Your task to perform on an android device: turn on priority inbox in the gmail app Image 0: 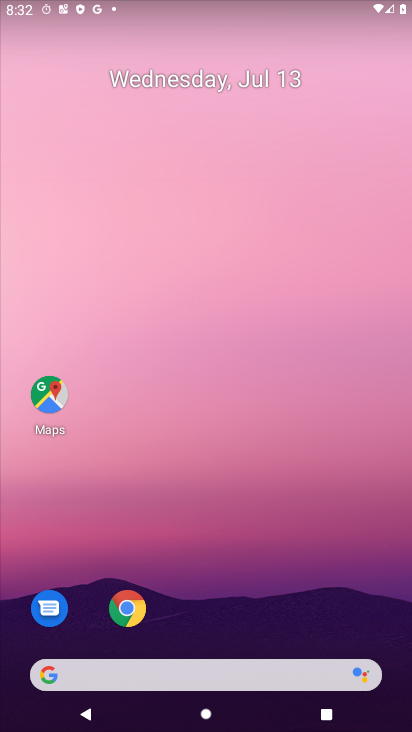
Step 0: drag from (270, 607) to (222, 164)
Your task to perform on an android device: turn on priority inbox in the gmail app Image 1: 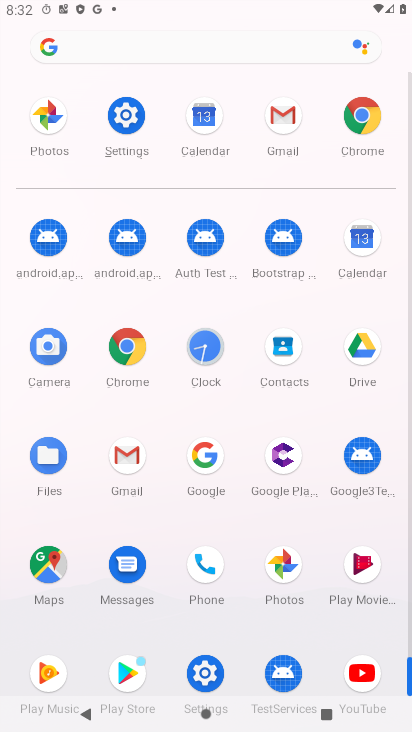
Step 1: click (287, 124)
Your task to perform on an android device: turn on priority inbox in the gmail app Image 2: 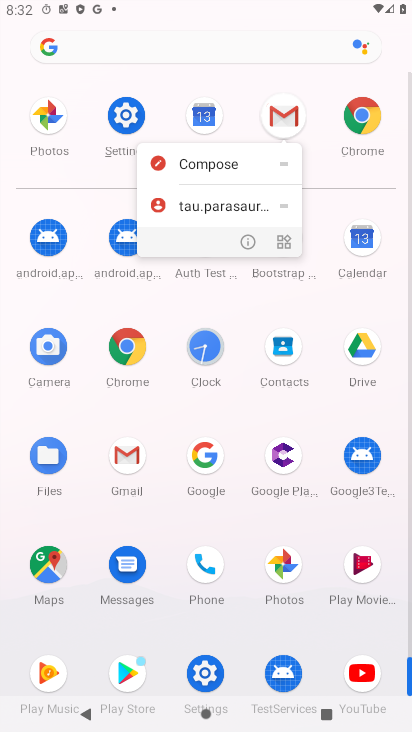
Step 2: click (287, 124)
Your task to perform on an android device: turn on priority inbox in the gmail app Image 3: 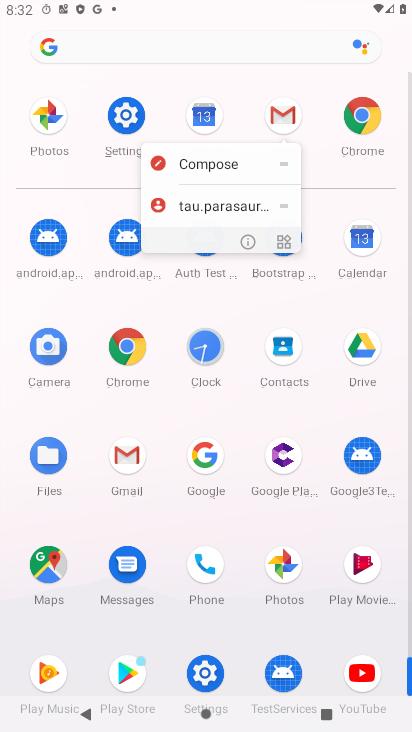
Step 3: click (287, 124)
Your task to perform on an android device: turn on priority inbox in the gmail app Image 4: 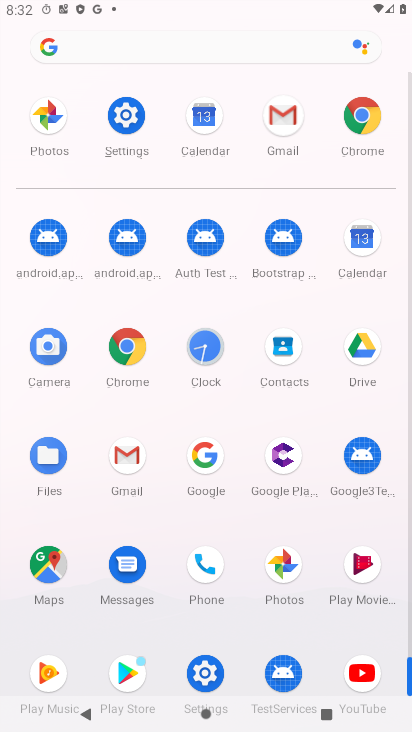
Step 4: click (287, 124)
Your task to perform on an android device: turn on priority inbox in the gmail app Image 5: 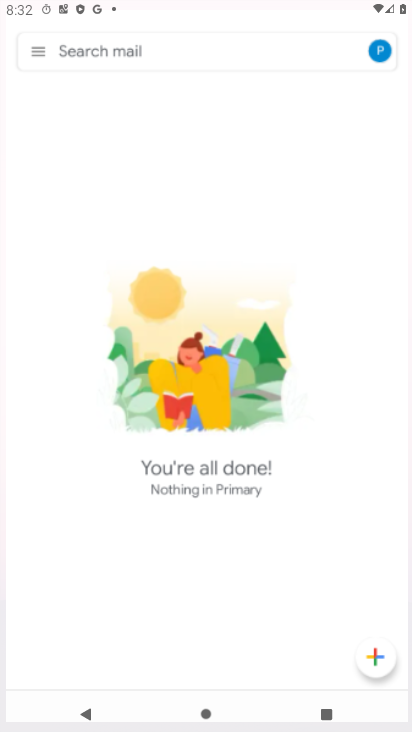
Step 5: click (288, 124)
Your task to perform on an android device: turn on priority inbox in the gmail app Image 6: 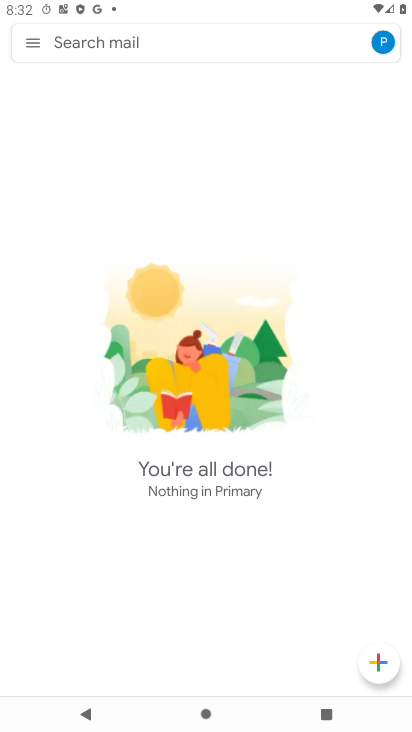
Step 6: click (288, 124)
Your task to perform on an android device: turn on priority inbox in the gmail app Image 7: 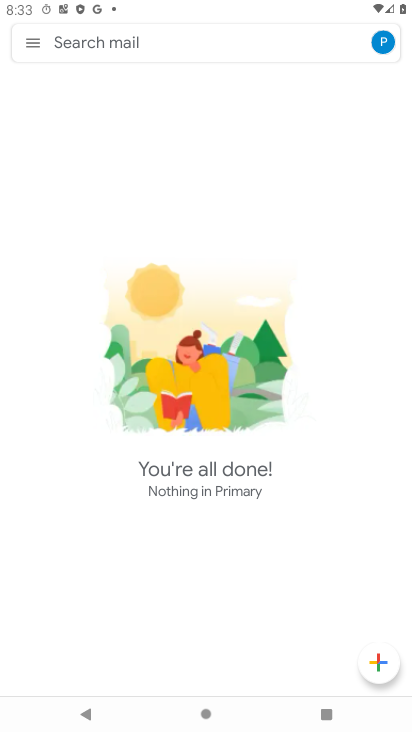
Step 7: click (37, 40)
Your task to perform on an android device: turn on priority inbox in the gmail app Image 8: 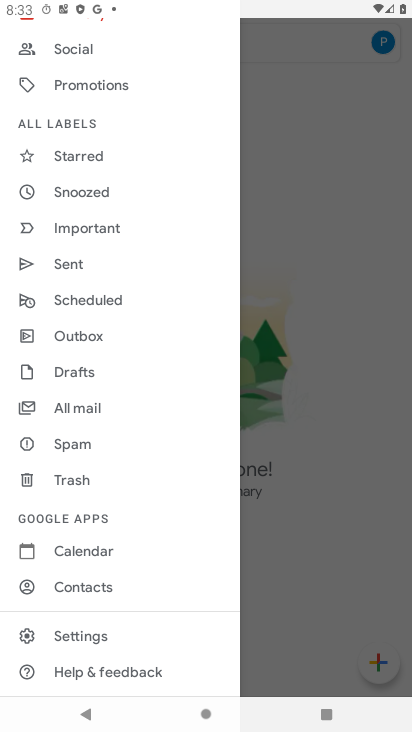
Step 8: click (78, 627)
Your task to perform on an android device: turn on priority inbox in the gmail app Image 9: 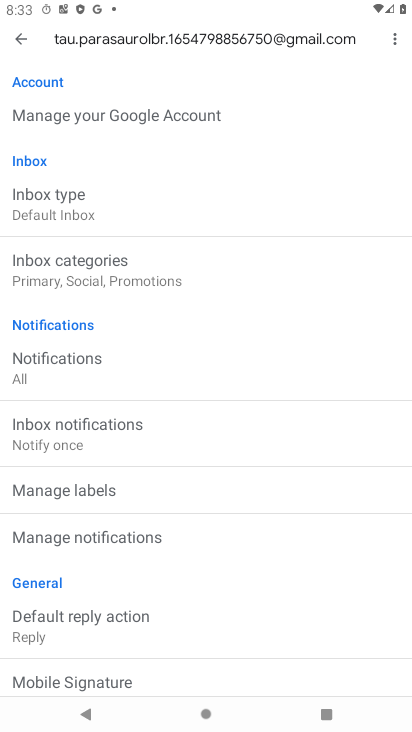
Step 9: click (44, 217)
Your task to perform on an android device: turn on priority inbox in the gmail app Image 10: 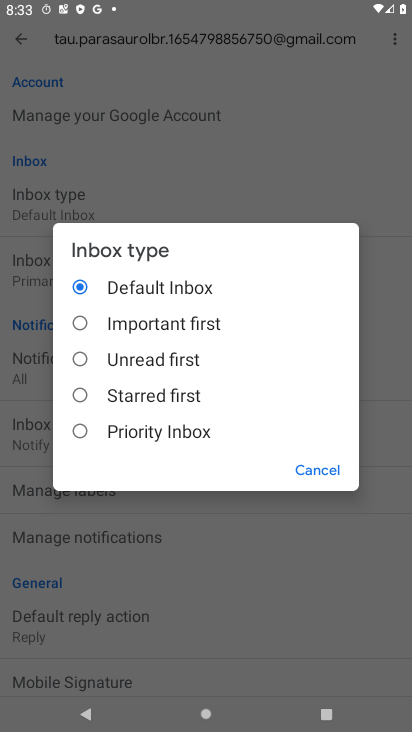
Step 10: click (81, 427)
Your task to perform on an android device: turn on priority inbox in the gmail app Image 11: 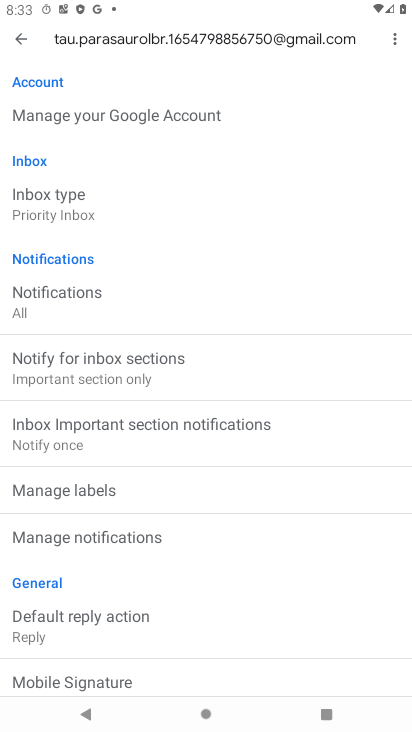
Step 11: task complete